Your task to perform on an android device: star an email in the gmail app Image 0: 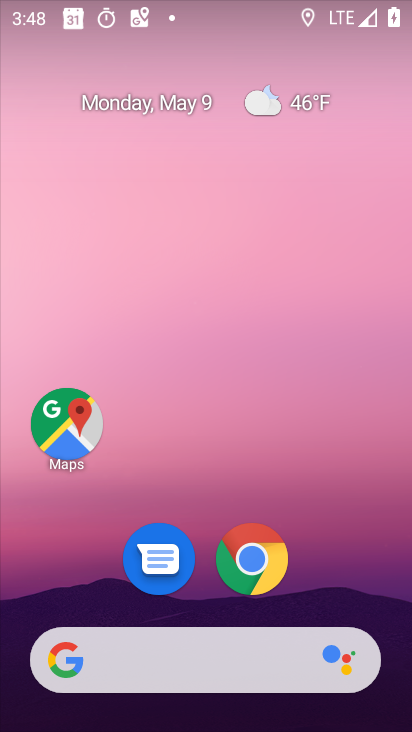
Step 0: drag from (341, 517) to (237, 39)
Your task to perform on an android device: star an email in the gmail app Image 1: 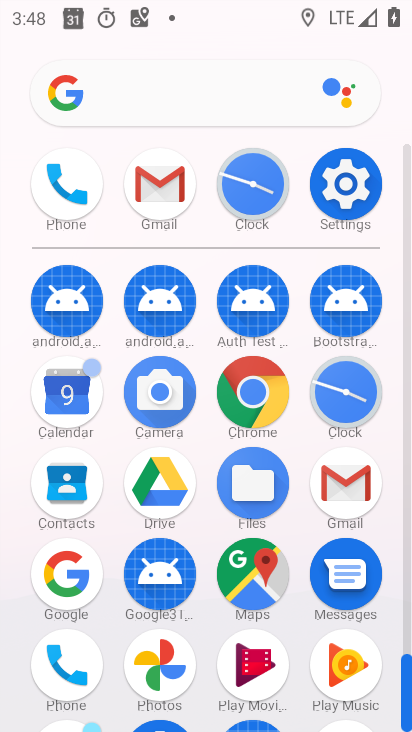
Step 1: click (158, 177)
Your task to perform on an android device: star an email in the gmail app Image 2: 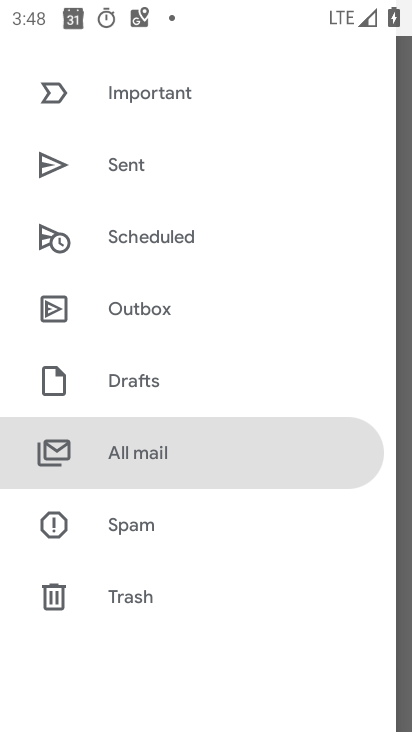
Step 2: drag from (167, 381) to (219, 242)
Your task to perform on an android device: star an email in the gmail app Image 3: 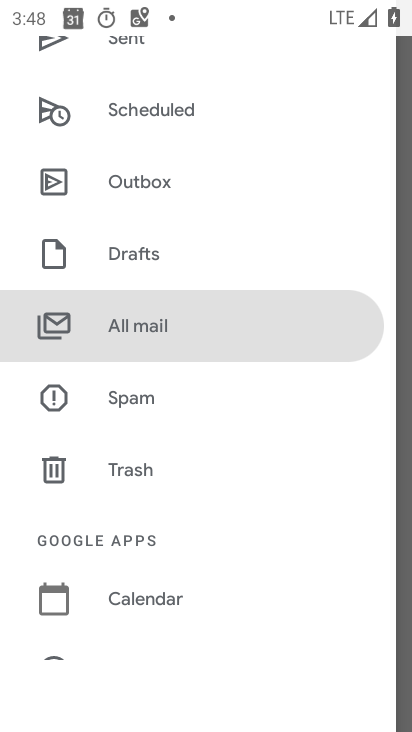
Step 3: drag from (216, 176) to (266, 343)
Your task to perform on an android device: star an email in the gmail app Image 4: 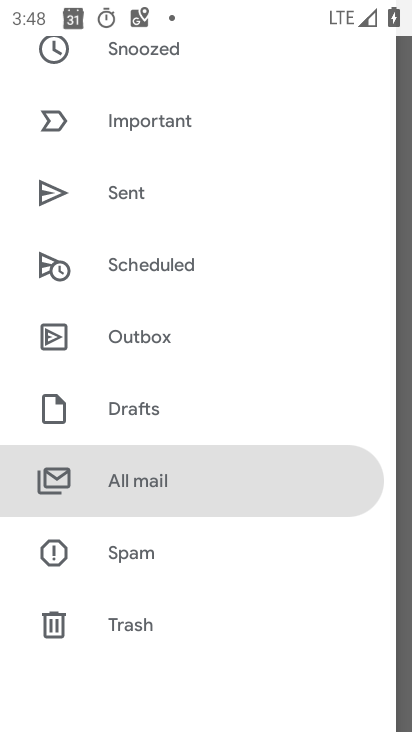
Step 4: drag from (199, 232) to (256, 373)
Your task to perform on an android device: star an email in the gmail app Image 5: 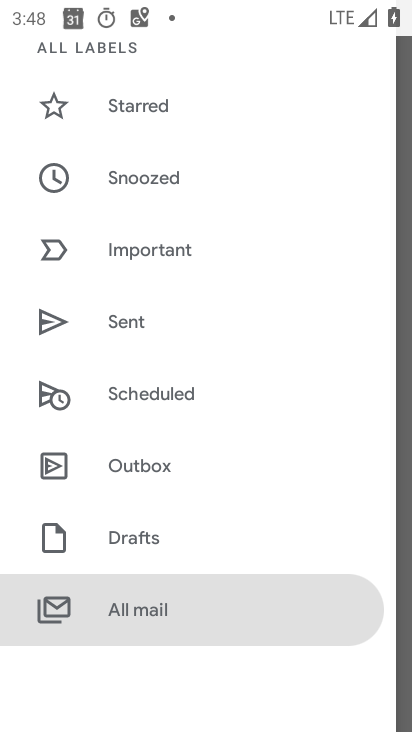
Step 5: drag from (267, 261) to (239, 397)
Your task to perform on an android device: star an email in the gmail app Image 6: 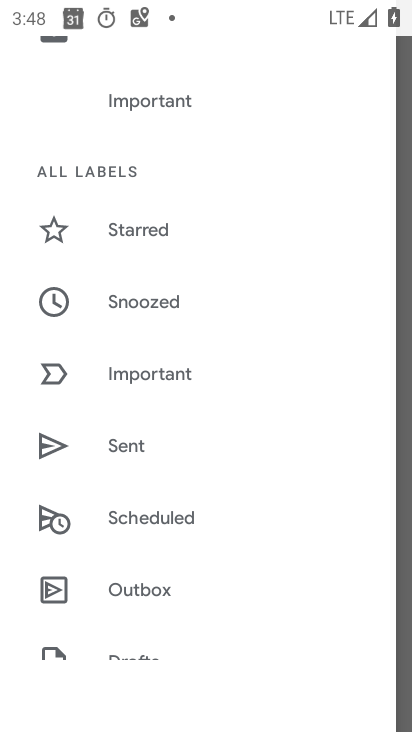
Step 6: drag from (229, 240) to (223, 404)
Your task to perform on an android device: star an email in the gmail app Image 7: 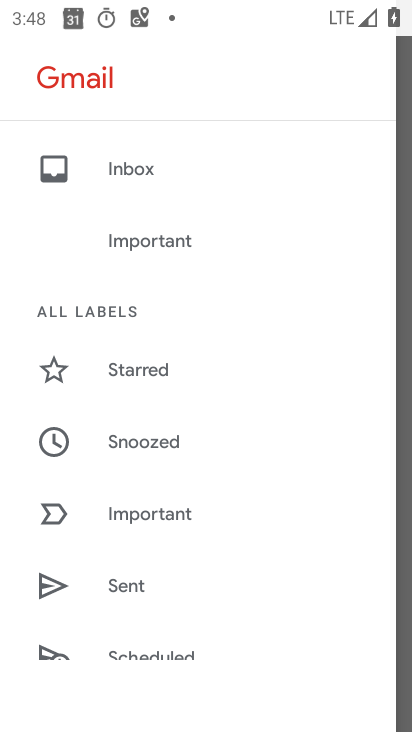
Step 7: drag from (168, 204) to (204, 369)
Your task to perform on an android device: star an email in the gmail app Image 8: 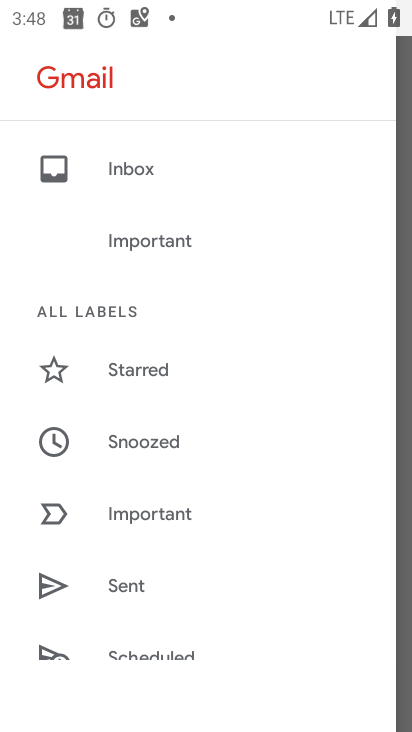
Step 8: drag from (171, 430) to (172, 340)
Your task to perform on an android device: star an email in the gmail app Image 9: 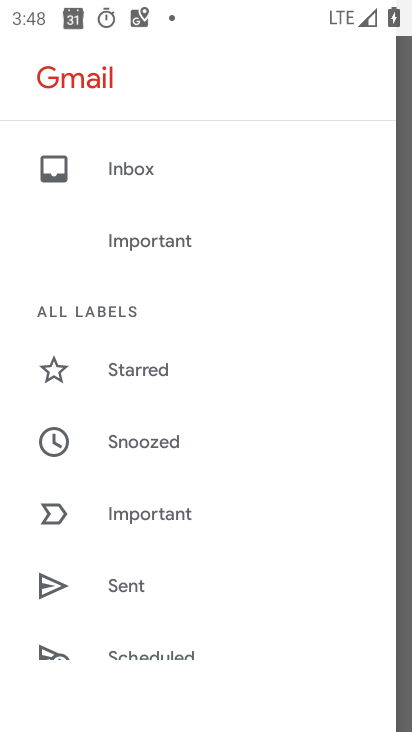
Step 9: drag from (119, 361) to (215, 228)
Your task to perform on an android device: star an email in the gmail app Image 10: 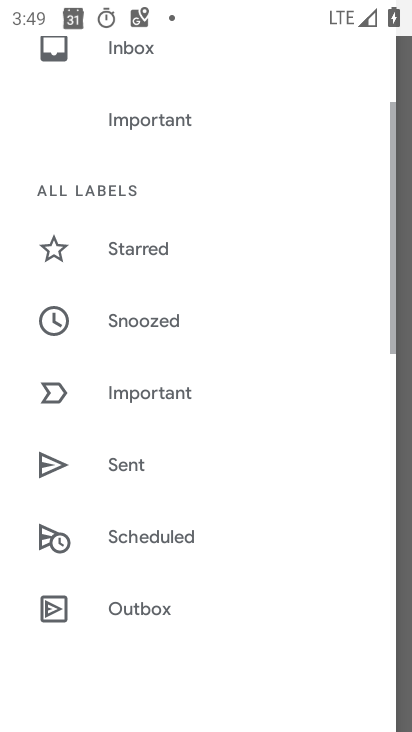
Step 10: click (162, 178)
Your task to perform on an android device: star an email in the gmail app Image 11: 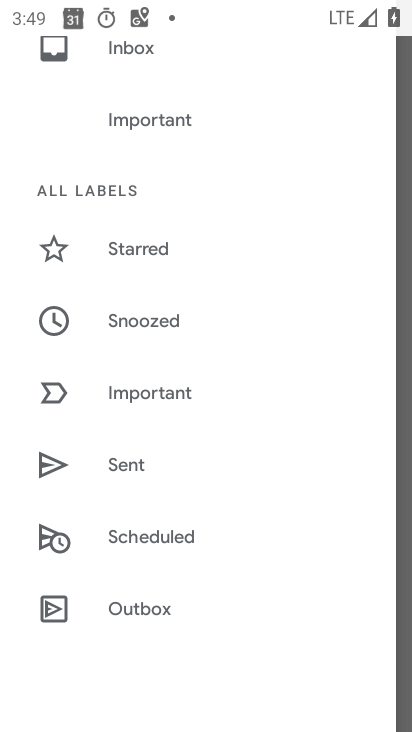
Step 11: drag from (176, 147) to (225, 339)
Your task to perform on an android device: star an email in the gmail app Image 12: 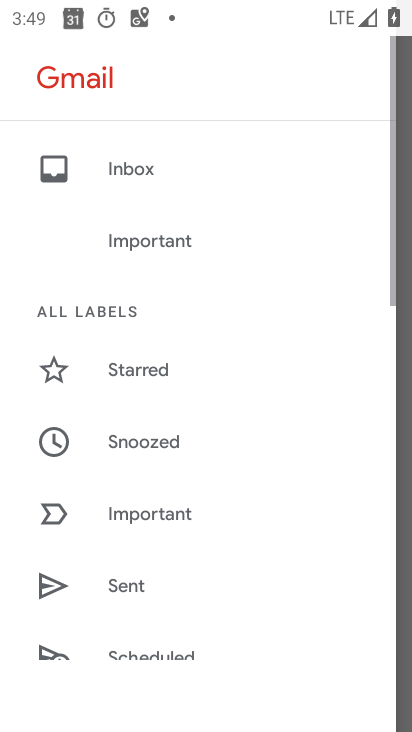
Step 12: click (140, 178)
Your task to perform on an android device: star an email in the gmail app Image 13: 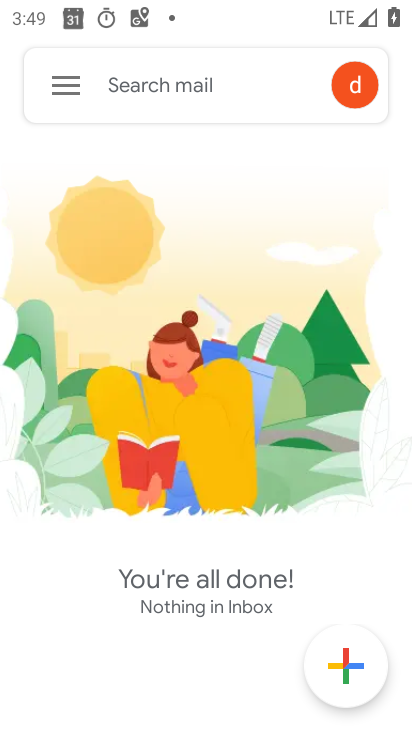
Step 13: task complete